Your task to perform on an android device: turn off sleep mode Image 0: 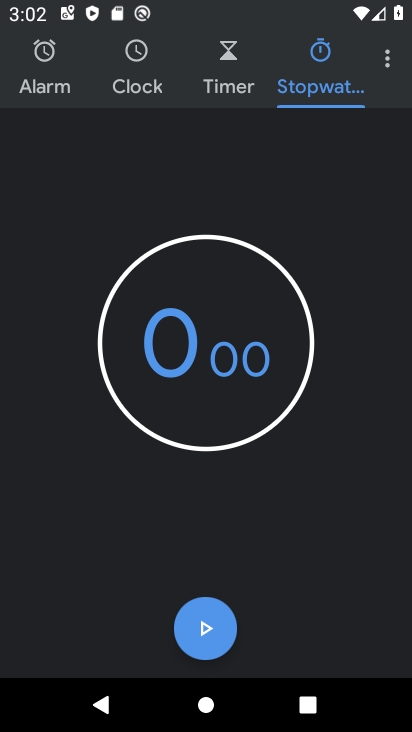
Step 0: press home button
Your task to perform on an android device: turn off sleep mode Image 1: 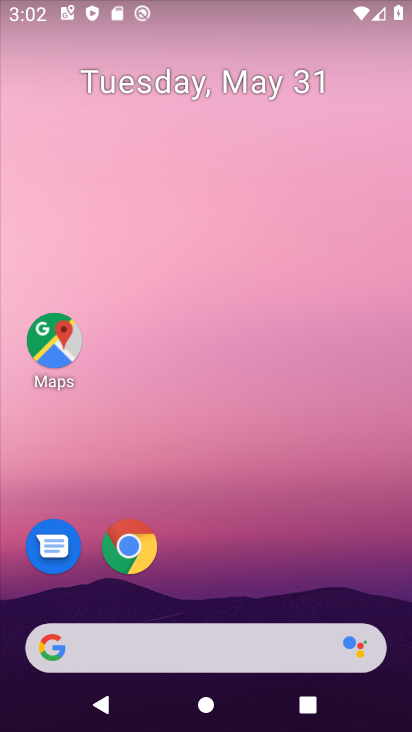
Step 1: drag from (229, 539) to (201, 1)
Your task to perform on an android device: turn off sleep mode Image 2: 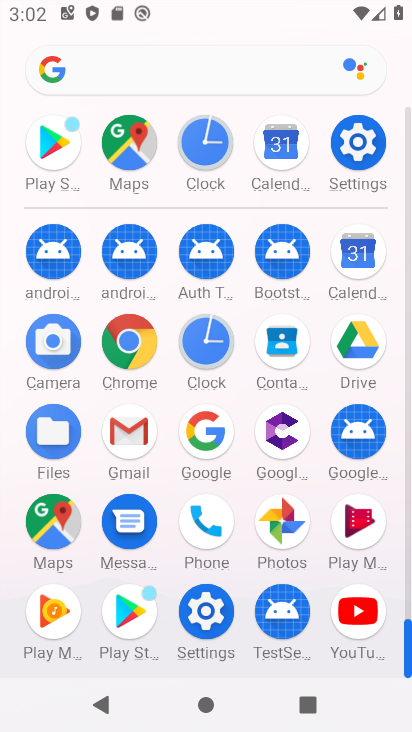
Step 2: click (354, 132)
Your task to perform on an android device: turn off sleep mode Image 3: 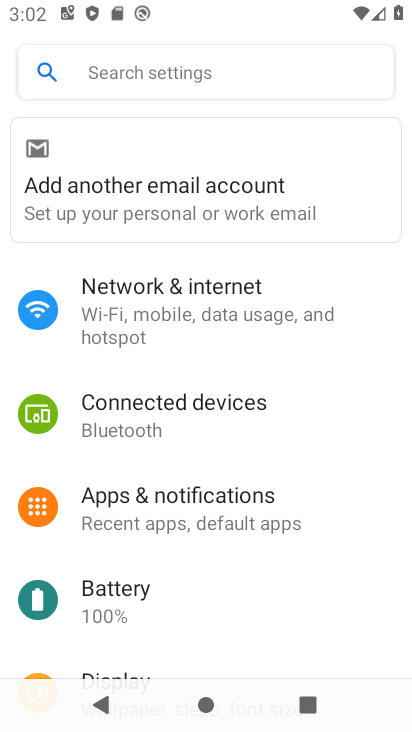
Step 3: drag from (249, 544) to (245, 172)
Your task to perform on an android device: turn off sleep mode Image 4: 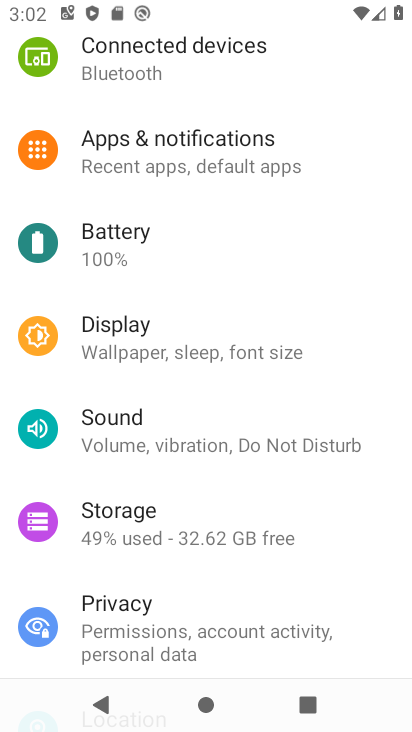
Step 4: click (227, 336)
Your task to perform on an android device: turn off sleep mode Image 5: 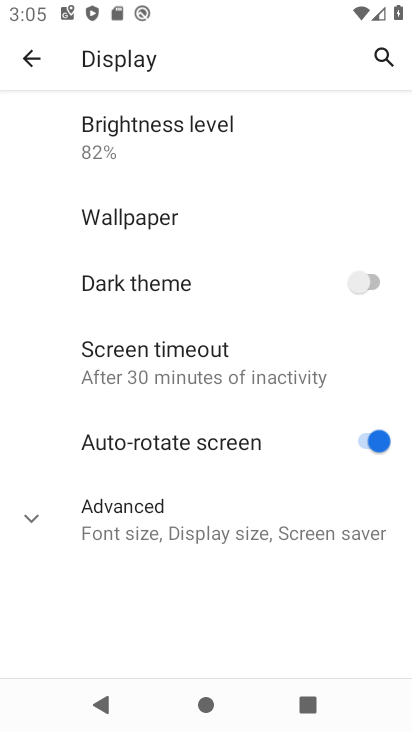
Step 5: task complete